Your task to perform on an android device: Open location settings Image 0: 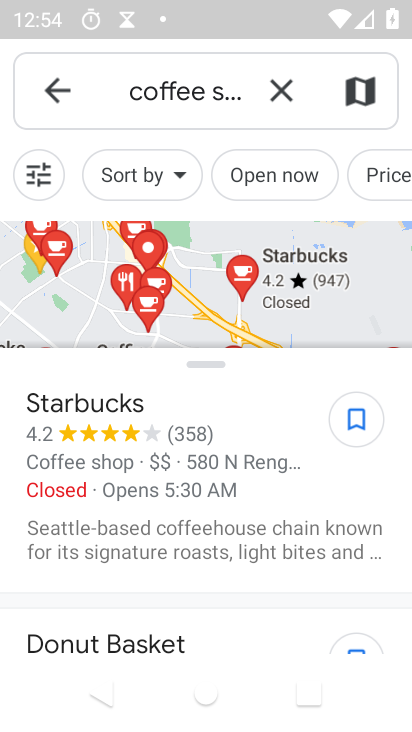
Step 0: press home button
Your task to perform on an android device: Open location settings Image 1: 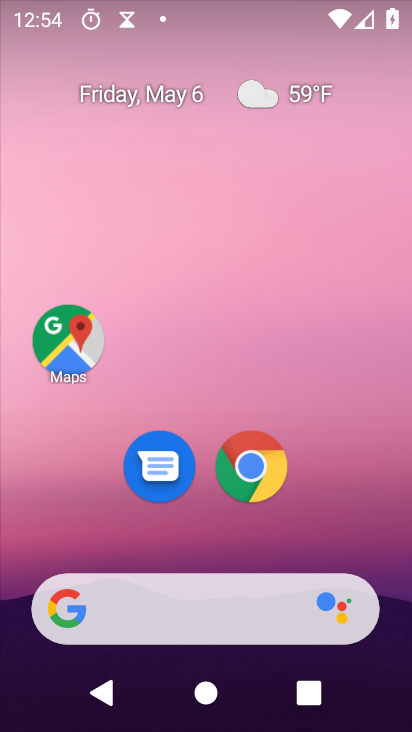
Step 1: drag from (322, 515) to (251, 156)
Your task to perform on an android device: Open location settings Image 2: 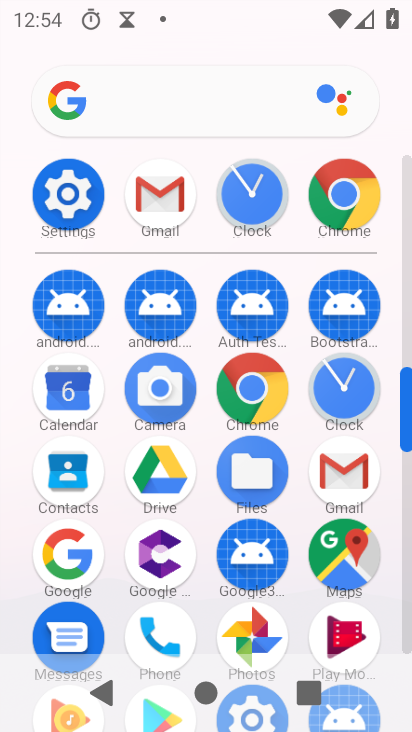
Step 2: click (411, 649)
Your task to perform on an android device: Open location settings Image 3: 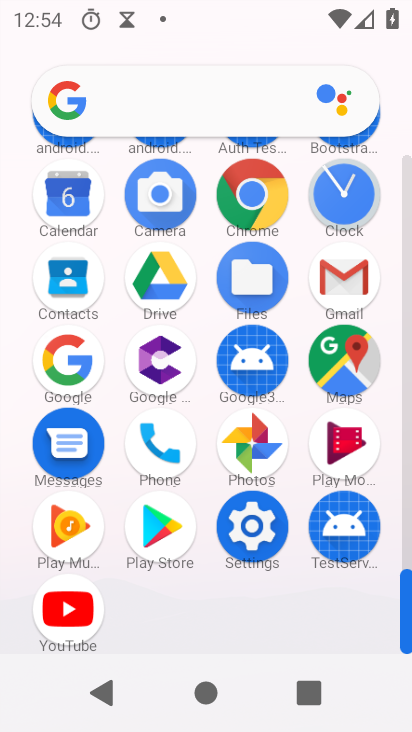
Step 3: click (265, 536)
Your task to perform on an android device: Open location settings Image 4: 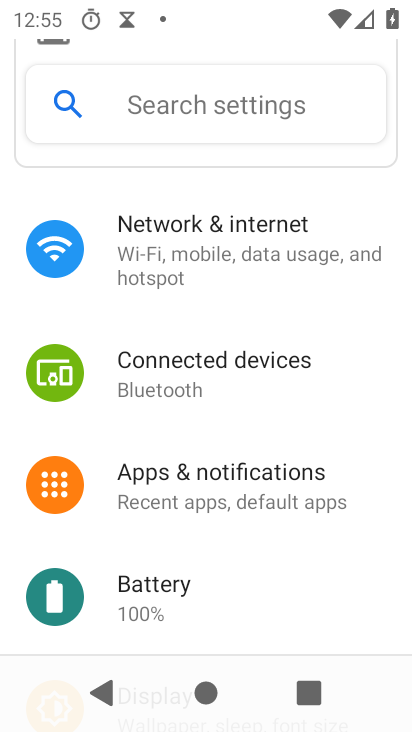
Step 4: drag from (274, 549) to (283, 176)
Your task to perform on an android device: Open location settings Image 5: 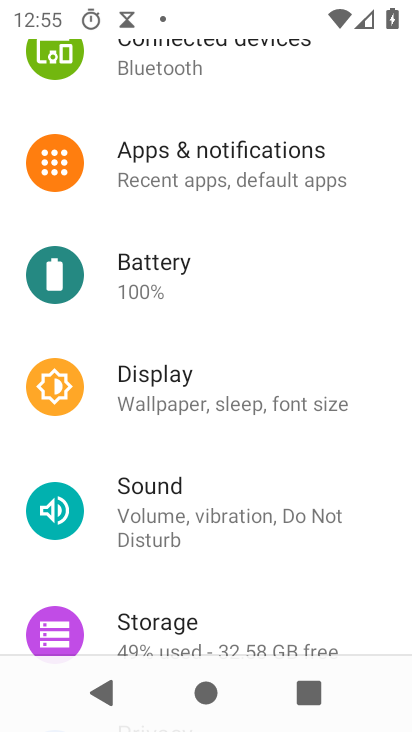
Step 5: drag from (219, 536) to (231, 216)
Your task to perform on an android device: Open location settings Image 6: 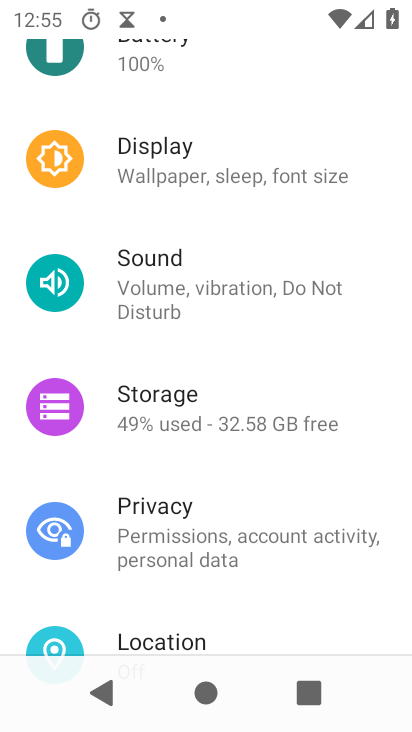
Step 6: drag from (270, 553) to (280, 398)
Your task to perform on an android device: Open location settings Image 7: 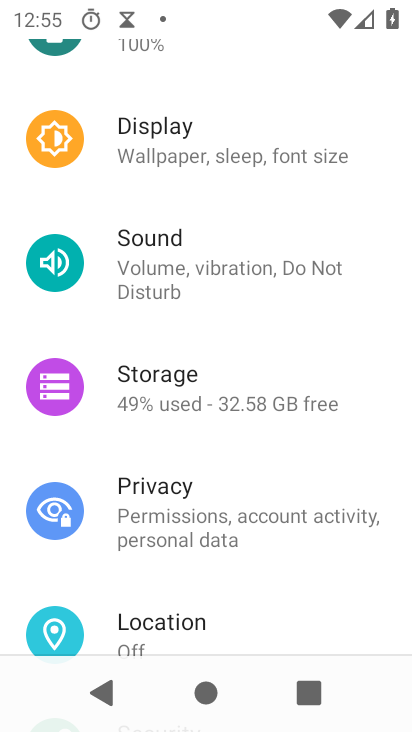
Step 7: click (223, 622)
Your task to perform on an android device: Open location settings Image 8: 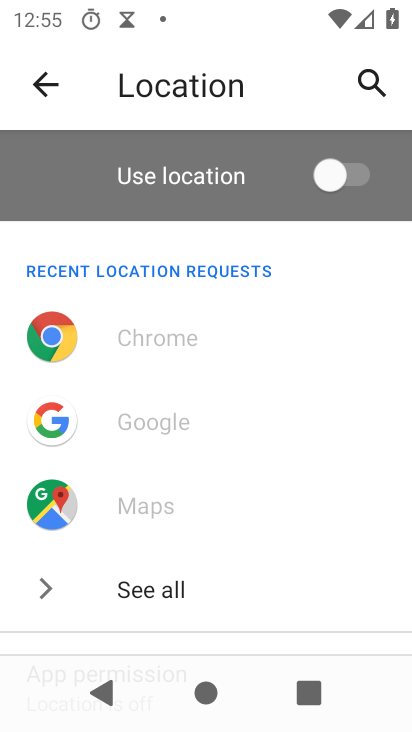
Step 8: task complete